Your task to perform on an android device: Open Chrome and go to settings Image 0: 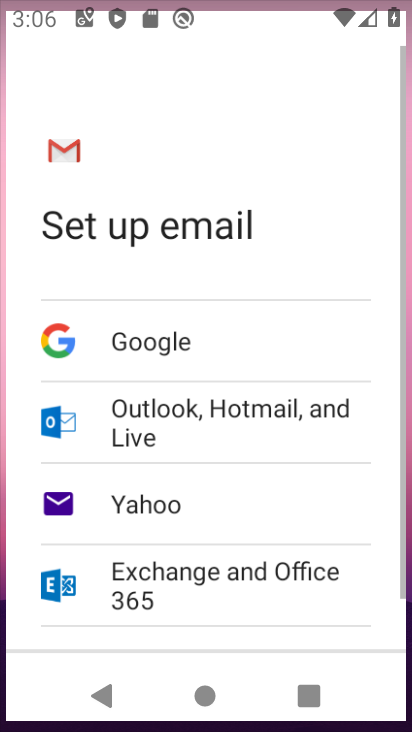
Step 0: drag from (217, 585) to (286, 90)
Your task to perform on an android device: Open Chrome and go to settings Image 1: 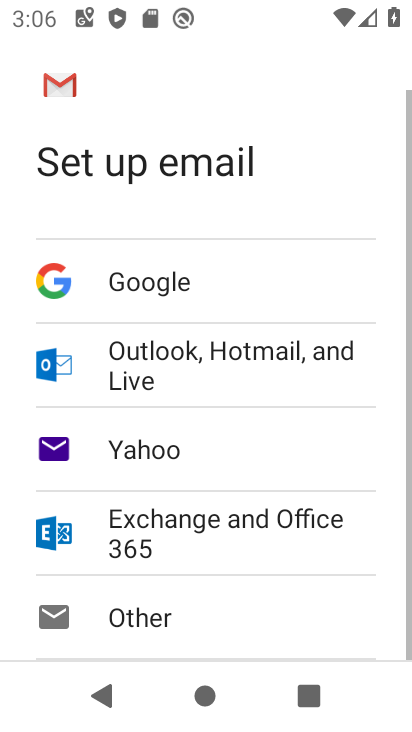
Step 1: press home button
Your task to perform on an android device: Open Chrome and go to settings Image 2: 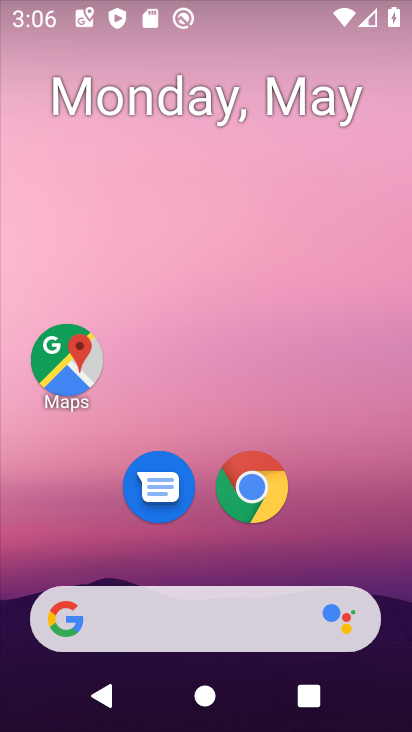
Step 2: drag from (218, 579) to (268, 117)
Your task to perform on an android device: Open Chrome and go to settings Image 3: 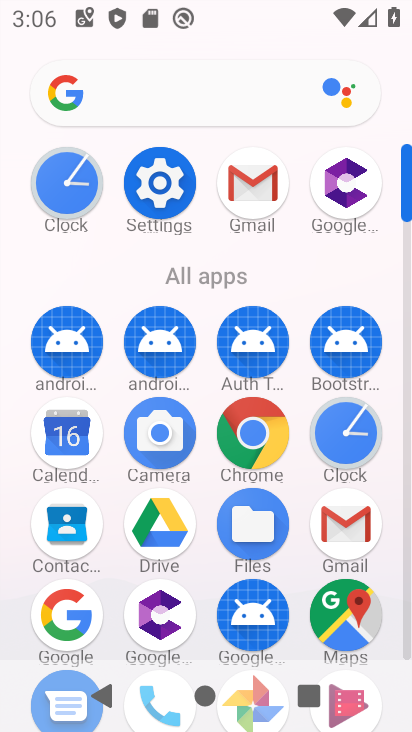
Step 3: click (165, 192)
Your task to perform on an android device: Open Chrome and go to settings Image 4: 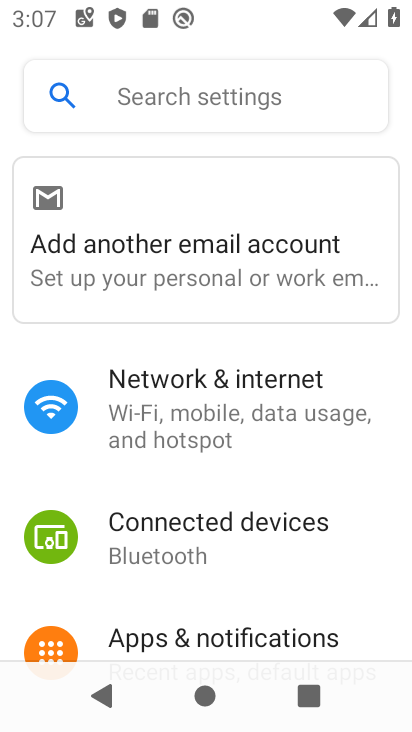
Step 4: drag from (210, 558) to (242, 111)
Your task to perform on an android device: Open Chrome and go to settings Image 5: 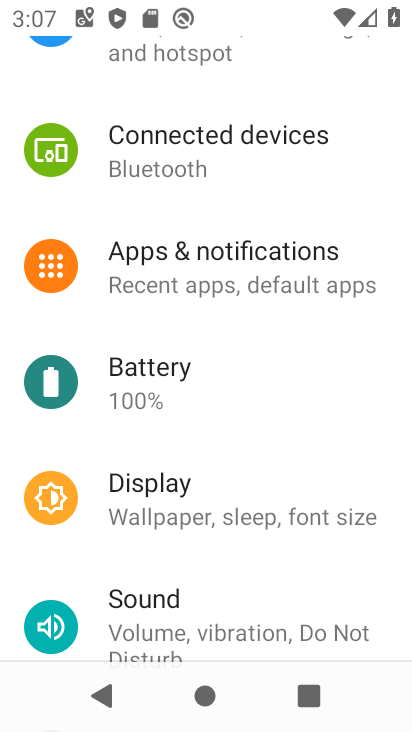
Step 5: press back button
Your task to perform on an android device: Open Chrome and go to settings Image 6: 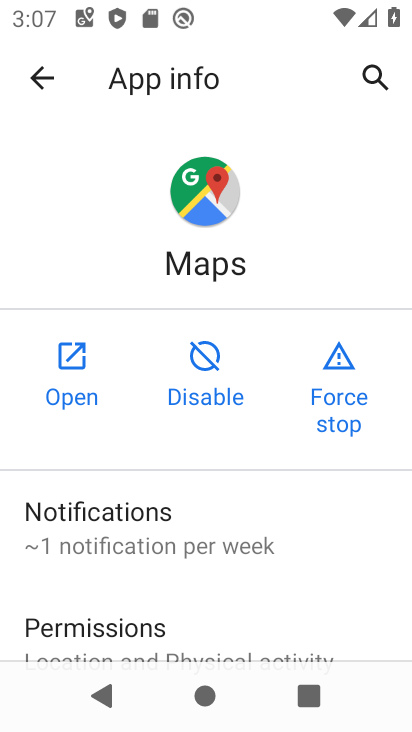
Step 6: press home button
Your task to perform on an android device: Open Chrome and go to settings Image 7: 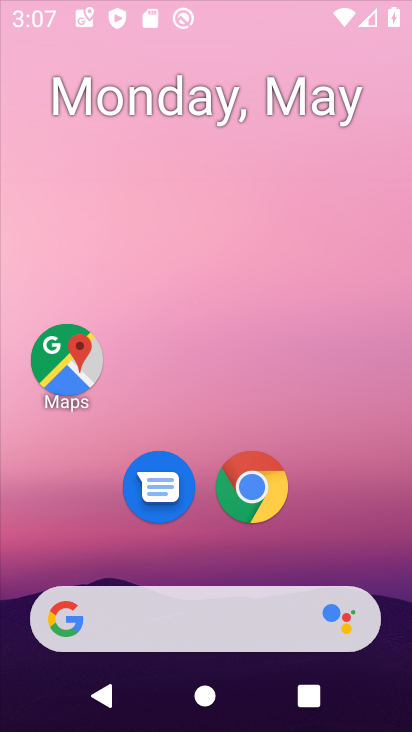
Step 7: drag from (200, 604) to (263, 100)
Your task to perform on an android device: Open Chrome and go to settings Image 8: 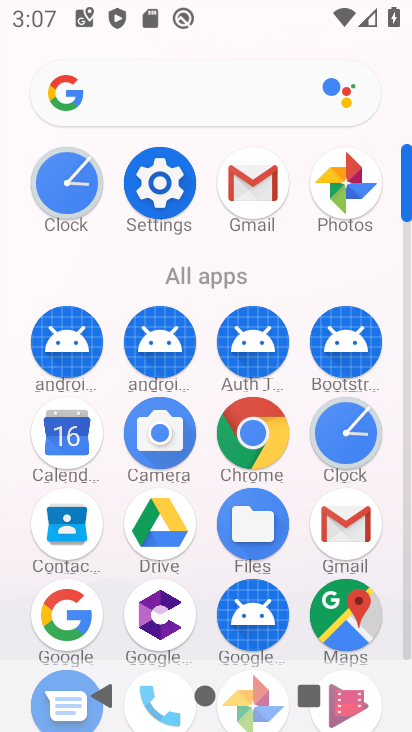
Step 8: click (247, 431)
Your task to perform on an android device: Open Chrome and go to settings Image 9: 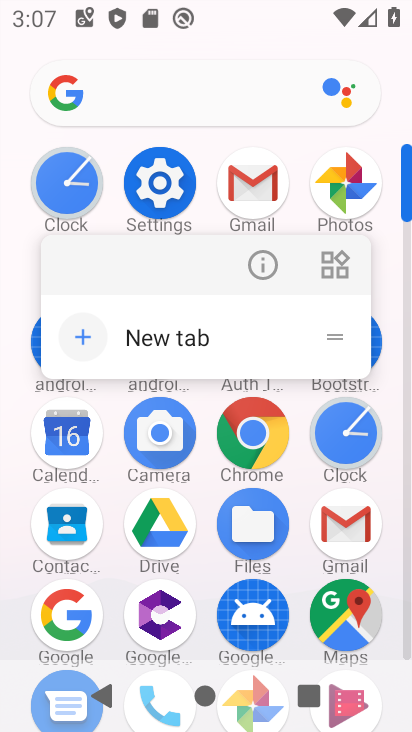
Step 9: click (256, 257)
Your task to perform on an android device: Open Chrome and go to settings Image 10: 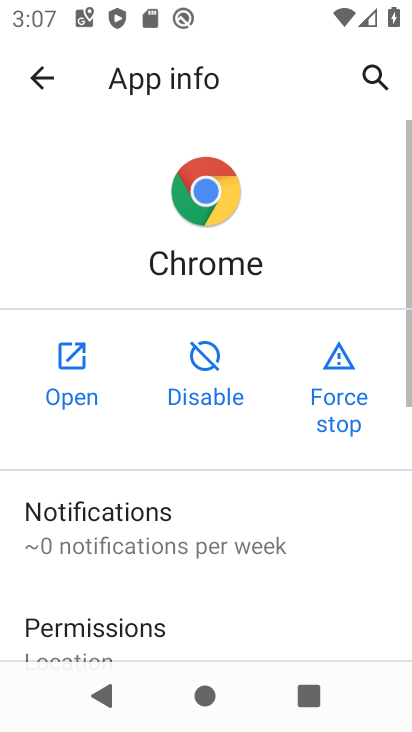
Step 10: click (57, 358)
Your task to perform on an android device: Open Chrome and go to settings Image 11: 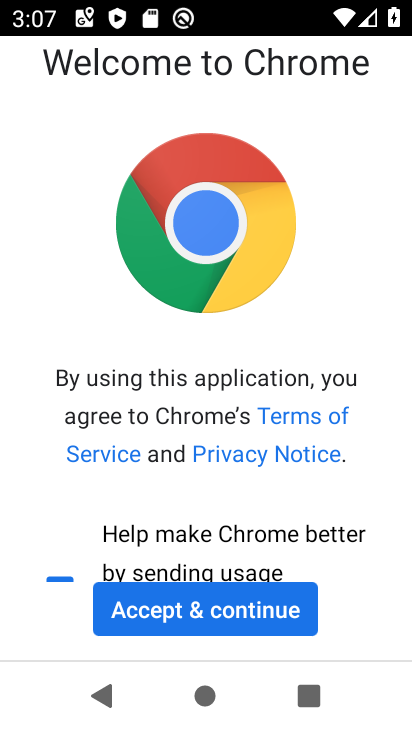
Step 11: click (181, 601)
Your task to perform on an android device: Open Chrome and go to settings Image 12: 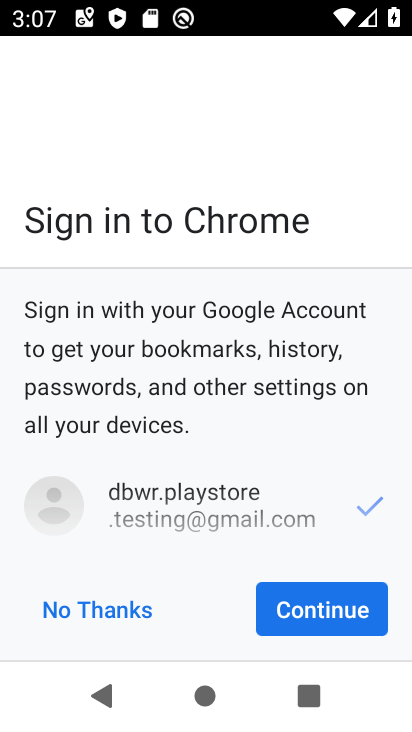
Step 12: click (302, 610)
Your task to perform on an android device: Open Chrome and go to settings Image 13: 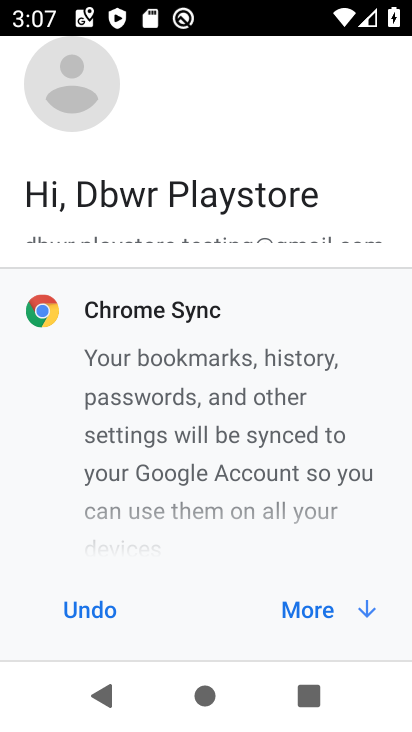
Step 13: click (295, 607)
Your task to perform on an android device: Open Chrome and go to settings Image 14: 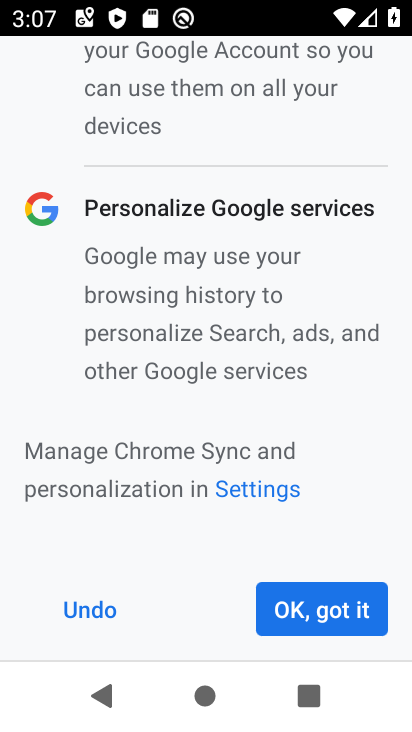
Step 14: click (288, 604)
Your task to perform on an android device: Open Chrome and go to settings Image 15: 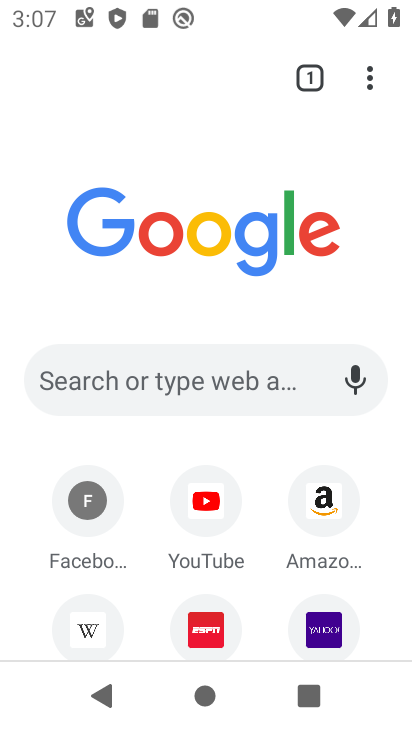
Step 15: click (372, 75)
Your task to perform on an android device: Open Chrome and go to settings Image 16: 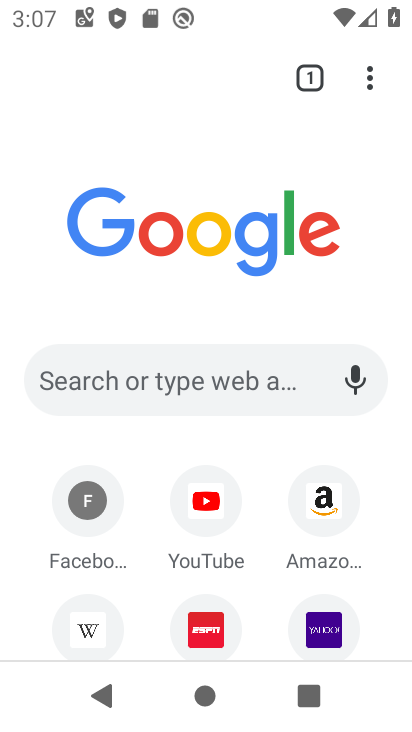
Step 16: click (372, 75)
Your task to perform on an android device: Open Chrome and go to settings Image 17: 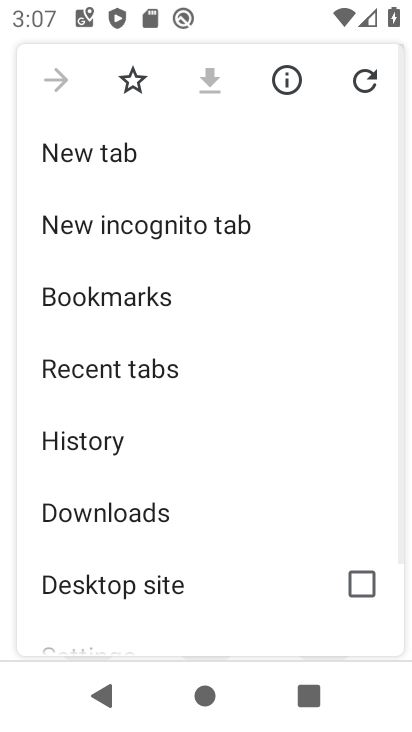
Step 17: drag from (219, 603) to (329, 160)
Your task to perform on an android device: Open Chrome and go to settings Image 18: 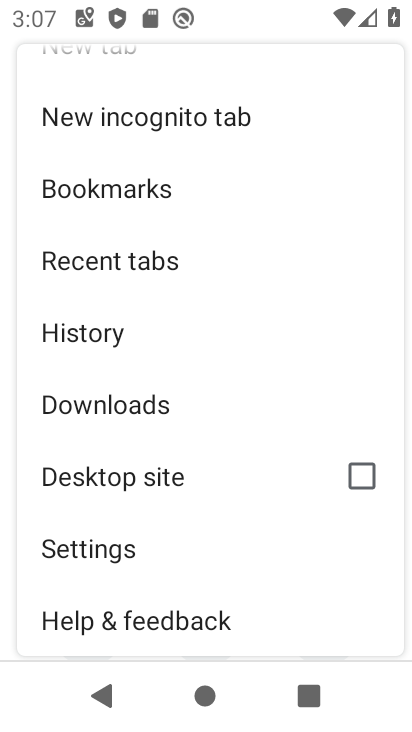
Step 18: click (130, 542)
Your task to perform on an android device: Open Chrome and go to settings Image 19: 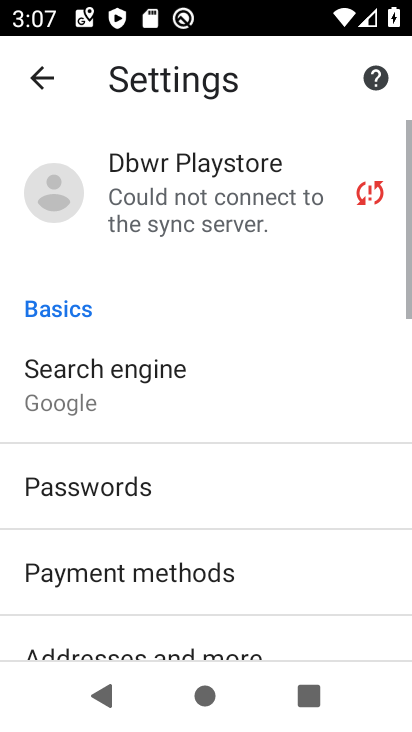
Step 19: drag from (233, 584) to (410, 131)
Your task to perform on an android device: Open Chrome and go to settings Image 20: 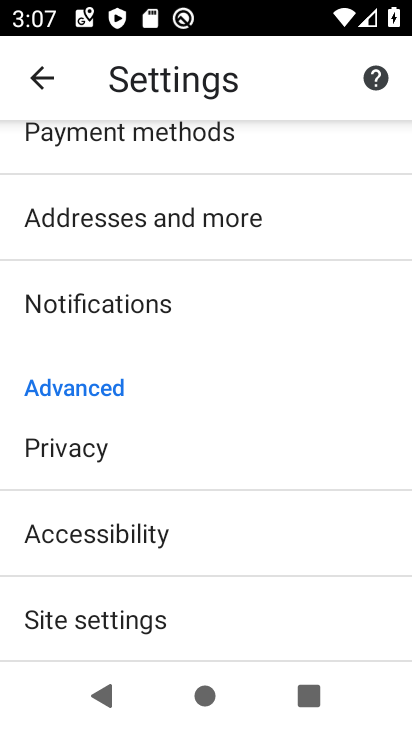
Step 20: drag from (186, 578) to (215, 190)
Your task to perform on an android device: Open Chrome and go to settings Image 21: 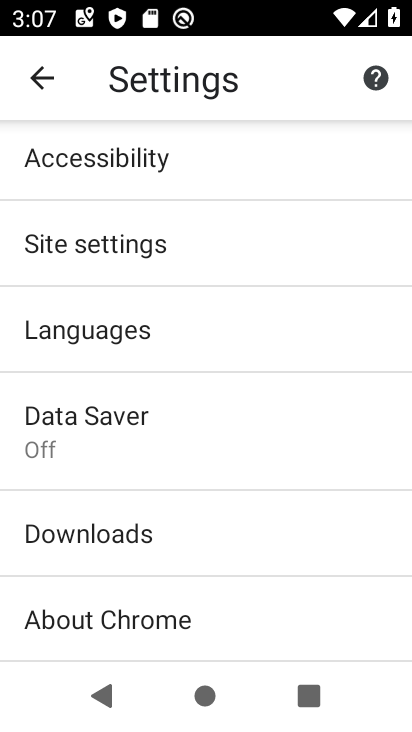
Step 21: drag from (203, 541) to (213, 222)
Your task to perform on an android device: Open Chrome and go to settings Image 22: 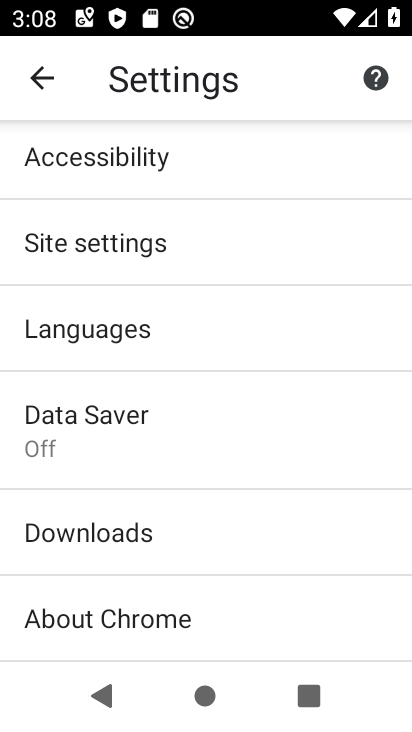
Step 22: click (192, 238)
Your task to perform on an android device: Open Chrome and go to settings Image 23: 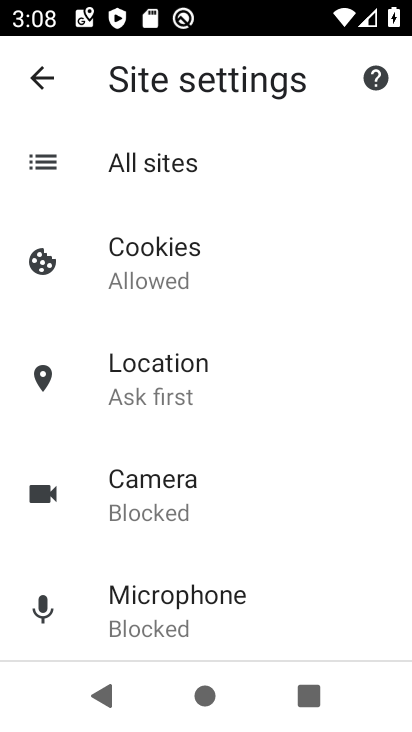
Step 23: task complete